Your task to perform on an android device: turn off smart reply in the gmail app Image 0: 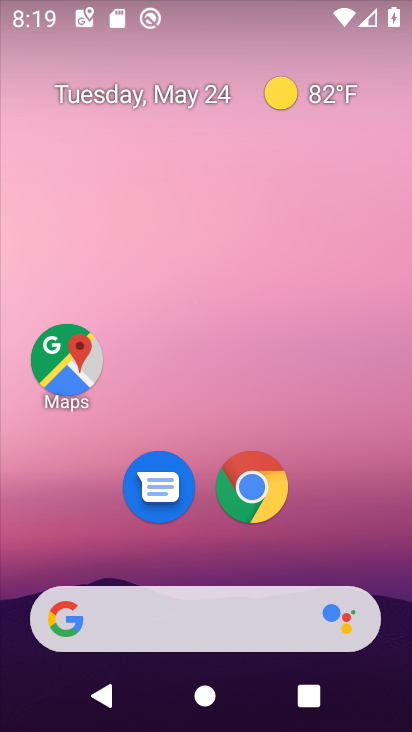
Step 0: drag from (395, 590) to (336, 165)
Your task to perform on an android device: turn off smart reply in the gmail app Image 1: 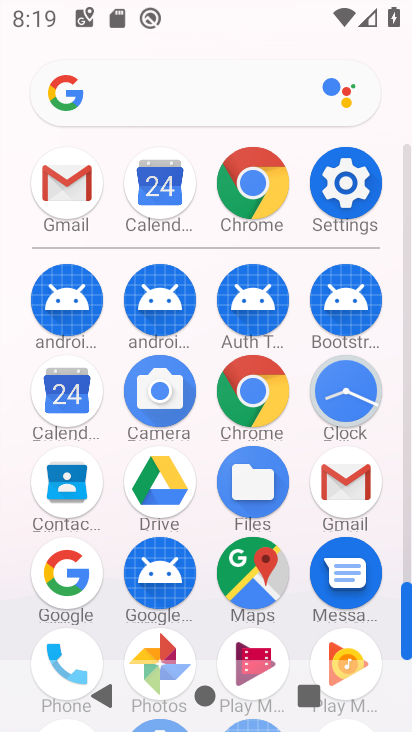
Step 1: click (376, 485)
Your task to perform on an android device: turn off smart reply in the gmail app Image 2: 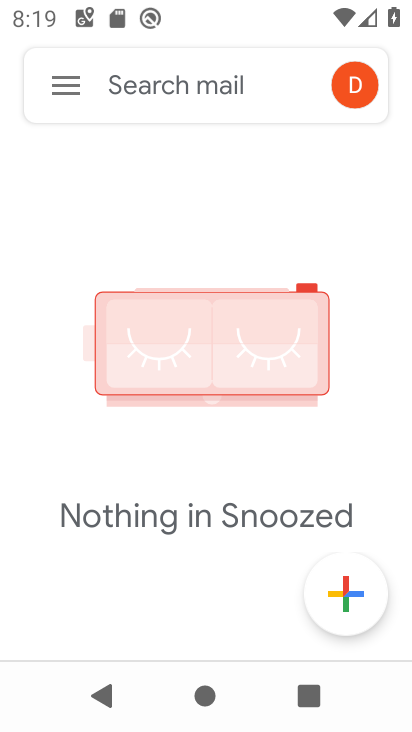
Step 2: click (60, 107)
Your task to perform on an android device: turn off smart reply in the gmail app Image 3: 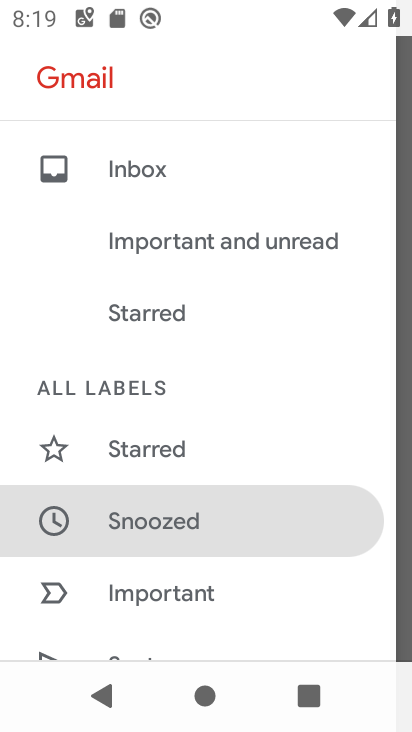
Step 3: drag from (190, 624) to (254, 143)
Your task to perform on an android device: turn off smart reply in the gmail app Image 4: 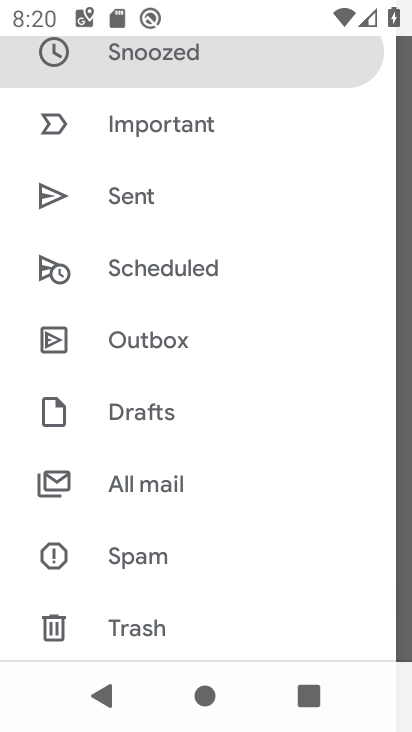
Step 4: drag from (241, 595) to (300, 183)
Your task to perform on an android device: turn off smart reply in the gmail app Image 5: 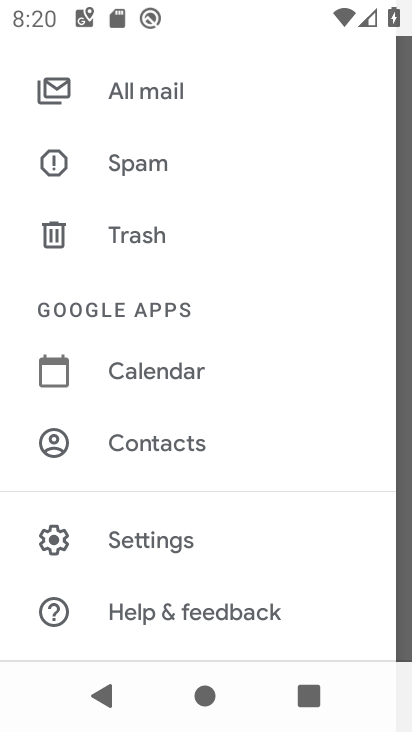
Step 5: drag from (280, 603) to (311, 386)
Your task to perform on an android device: turn off smart reply in the gmail app Image 6: 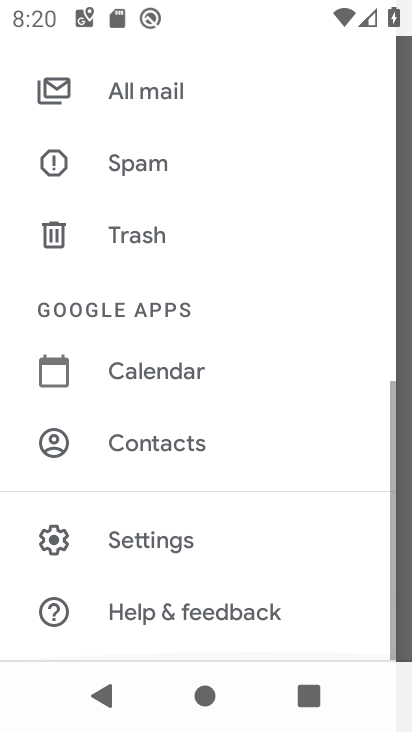
Step 6: click (196, 547)
Your task to perform on an android device: turn off smart reply in the gmail app Image 7: 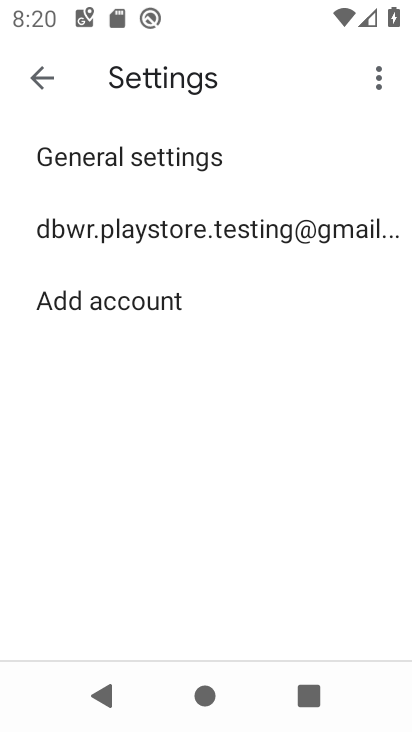
Step 7: click (127, 242)
Your task to perform on an android device: turn off smart reply in the gmail app Image 8: 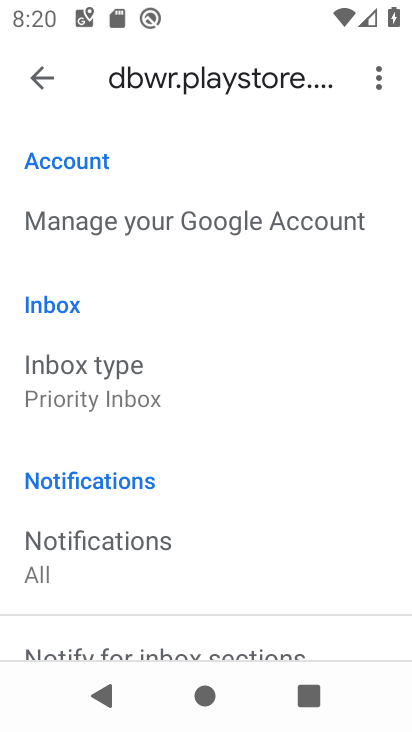
Step 8: drag from (217, 551) to (226, 128)
Your task to perform on an android device: turn off smart reply in the gmail app Image 9: 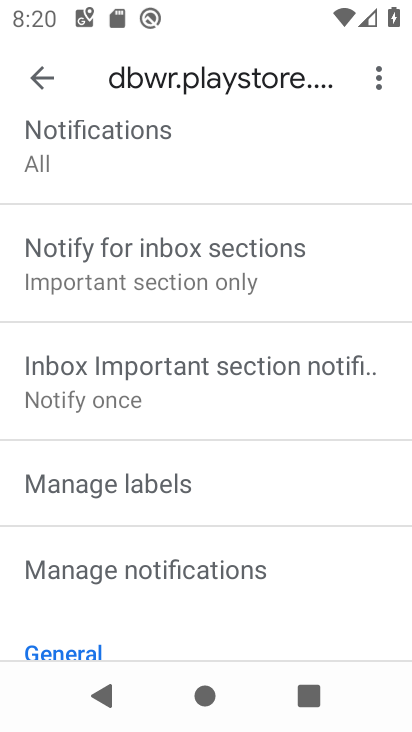
Step 9: drag from (306, 592) to (308, 205)
Your task to perform on an android device: turn off smart reply in the gmail app Image 10: 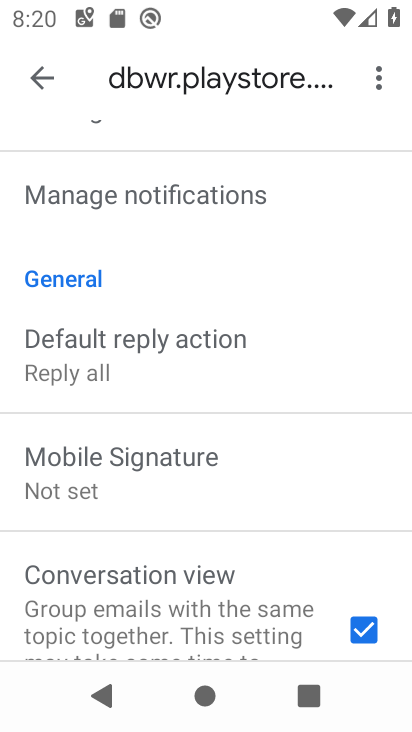
Step 10: drag from (301, 546) to (333, 247)
Your task to perform on an android device: turn off smart reply in the gmail app Image 11: 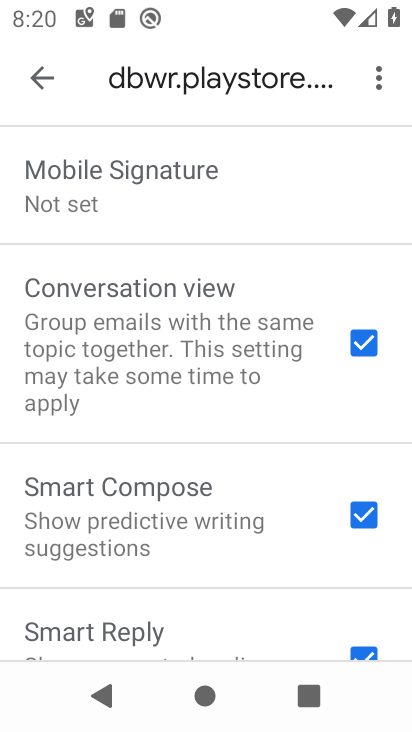
Step 11: drag from (294, 620) to (311, 269)
Your task to perform on an android device: turn off smart reply in the gmail app Image 12: 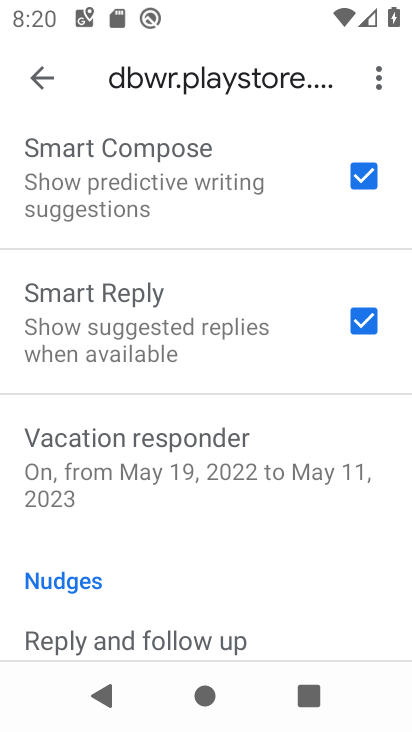
Step 12: click (358, 326)
Your task to perform on an android device: turn off smart reply in the gmail app Image 13: 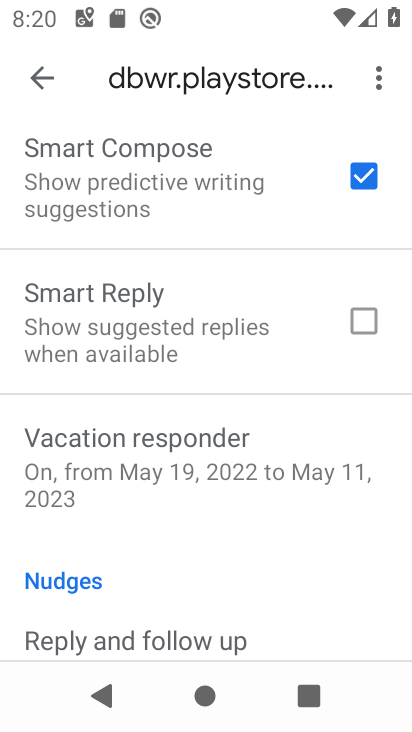
Step 13: task complete